Your task to perform on an android device: turn on javascript in the chrome app Image 0: 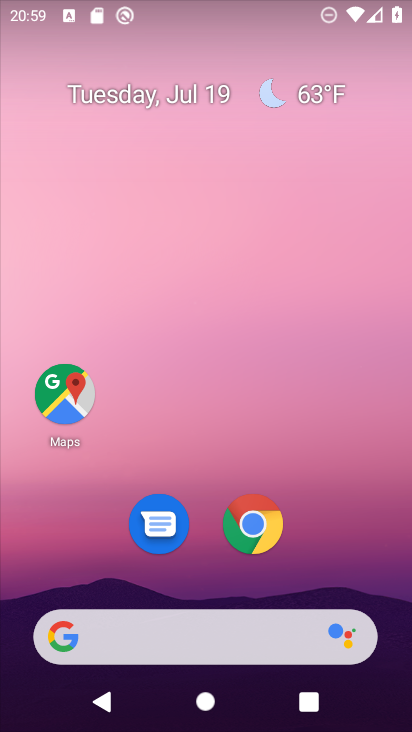
Step 0: click (257, 521)
Your task to perform on an android device: turn on javascript in the chrome app Image 1: 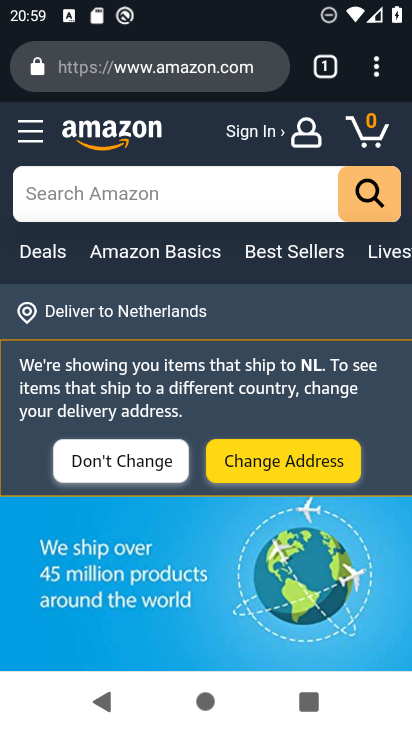
Step 1: click (374, 69)
Your task to perform on an android device: turn on javascript in the chrome app Image 2: 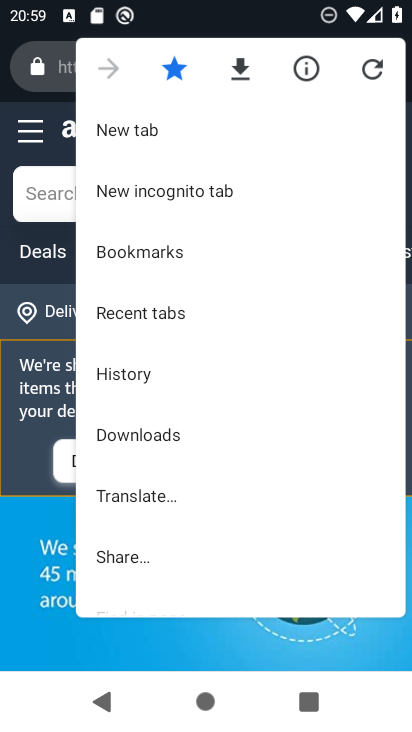
Step 2: drag from (237, 478) to (272, 172)
Your task to perform on an android device: turn on javascript in the chrome app Image 3: 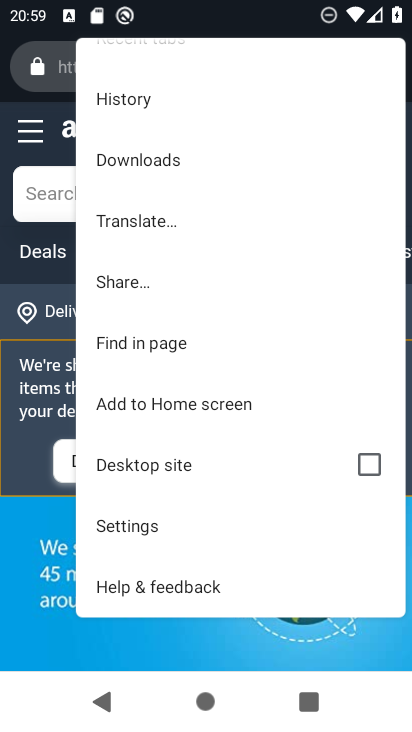
Step 3: click (149, 524)
Your task to perform on an android device: turn on javascript in the chrome app Image 4: 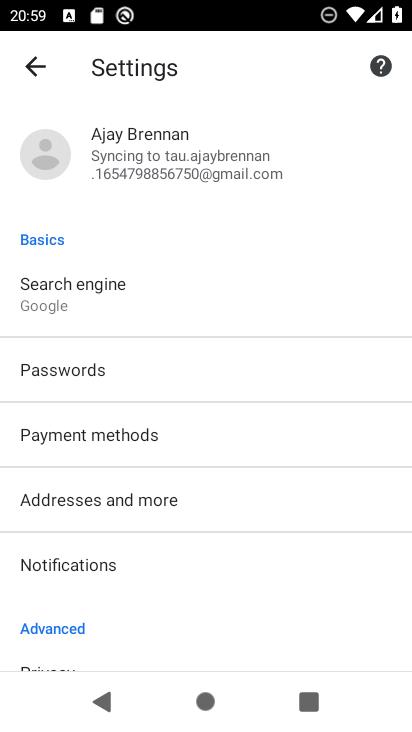
Step 4: drag from (211, 578) to (266, 168)
Your task to perform on an android device: turn on javascript in the chrome app Image 5: 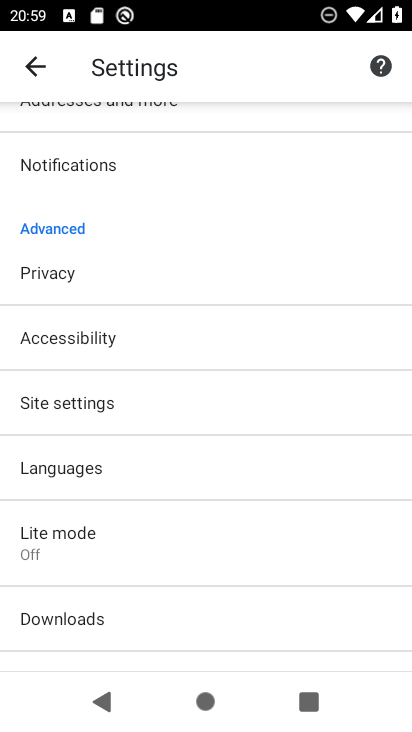
Step 5: drag from (206, 525) to (225, 275)
Your task to perform on an android device: turn on javascript in the chrome app Image 6: 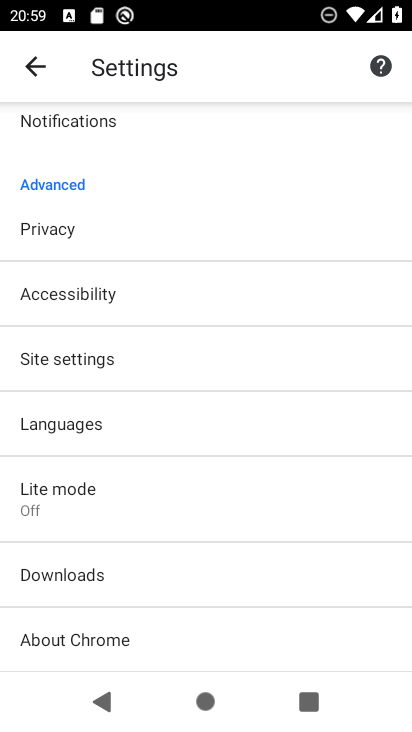
Step 6: click (128, 364)
Your task to perform on an android device: turn on javascript in the chrome app Image 7: 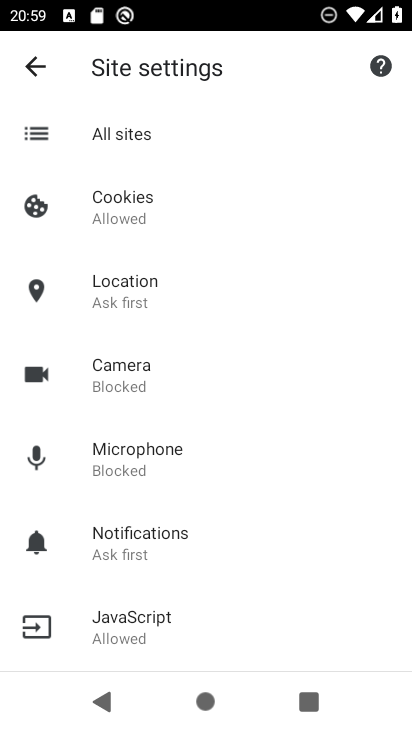
Step 7: click (158, 618)
Your task to perform on an android device: turn on javascript in the chrome app Image 8: 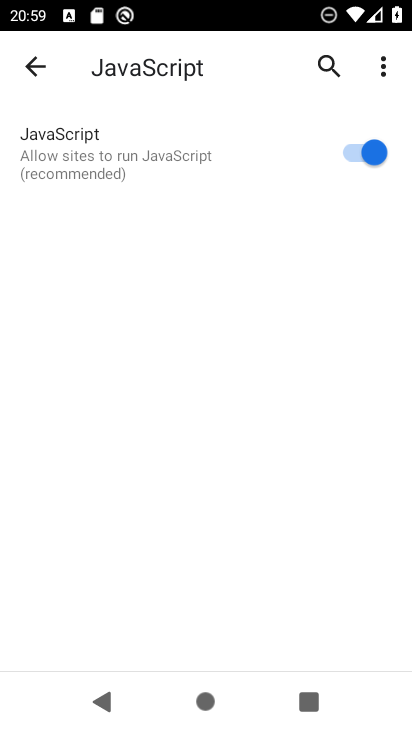
Step 8: task complete